Your task to perform on an android device: Open Google Chrome and open the bookmarks view Image 0: 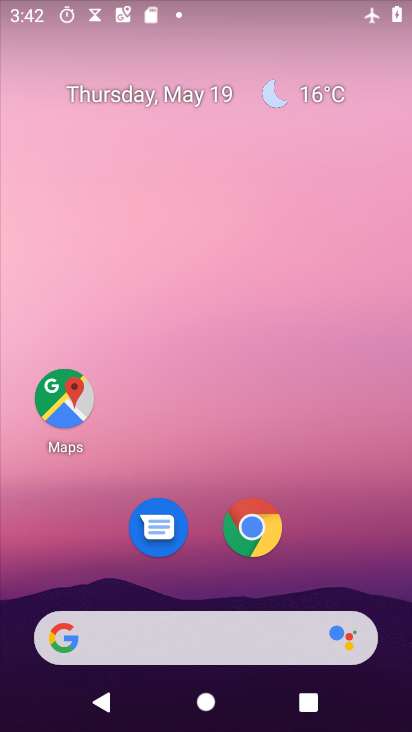
Step 0: click (265, 532)
Your task to perform on an android device: Open Google Chrome and open the bookmarks view Image 1: 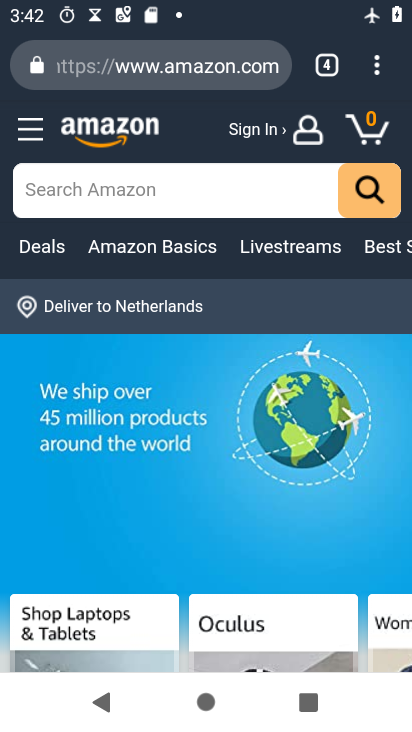
Step 1: click (372, 78)
Your task to perform on an android device: Open Google Chrome and open the bookmarks view Image 2: 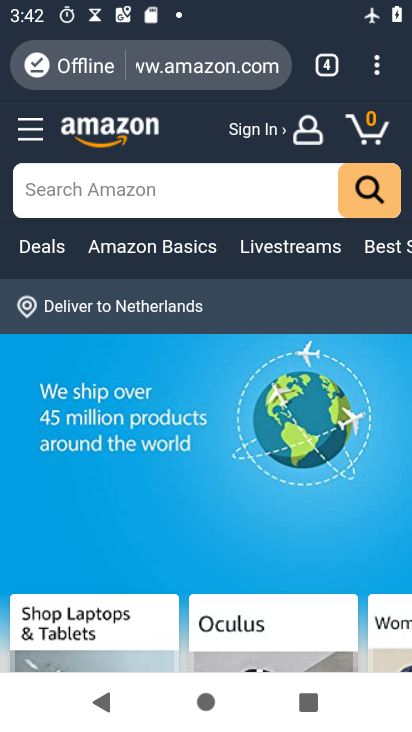
Step 2: click (376, 52)
Your task to perform on an android device: Open Google Chrome and open the bookmarks view Image 3: 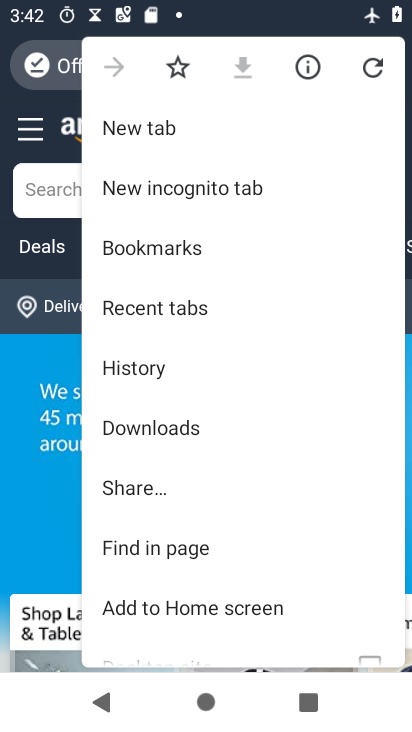
Step 3: click (202, 248)
Your task to perform on an android device: Open Google Chrome and open the bookmarks view Image 4: 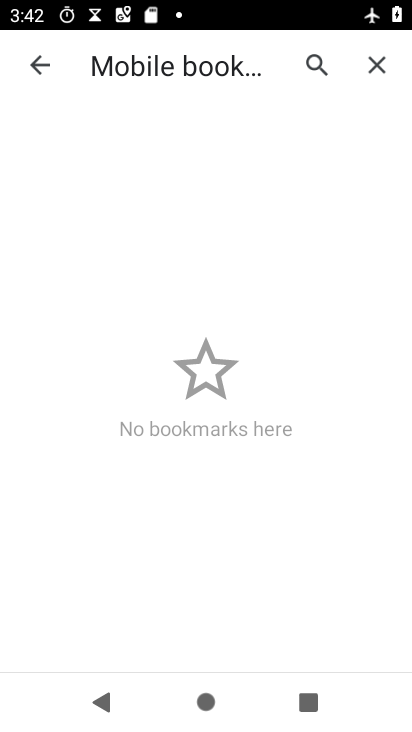
Step 4: task complete